Your task to perform on an android device: check out phone information Image 0: 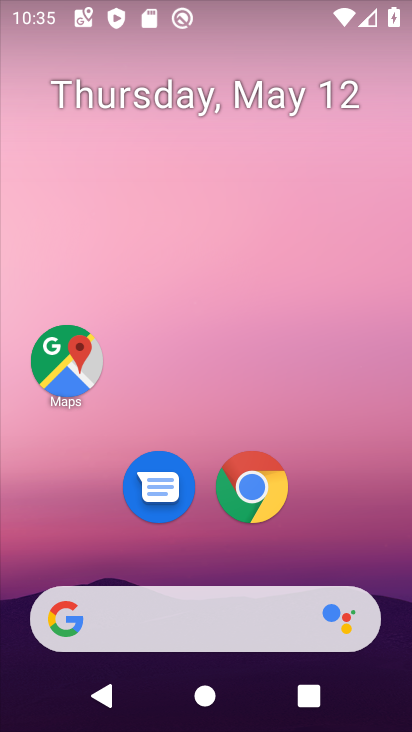
Step 0: drag from (94, 505) to (302, 171)
Your task to perform on an android device: check out phone information Image 1: 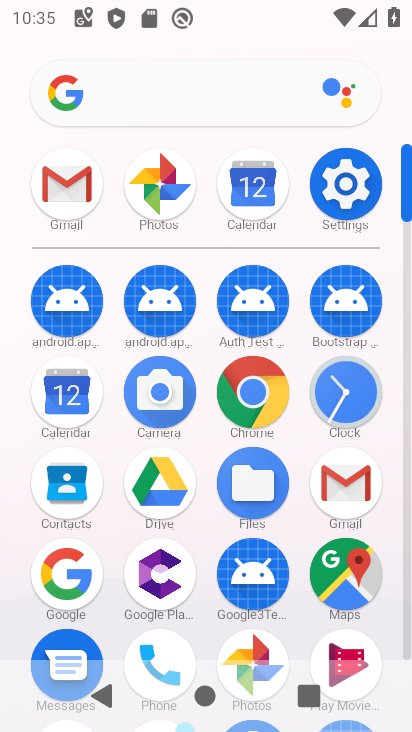
Step 1: click (163, 643)
Your task to perform on an android device: check out phone information Image 2: 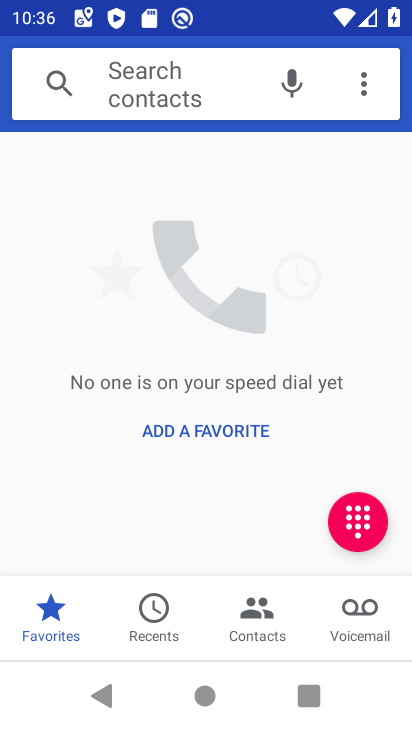
Step 2: task complete